Your task to perform on an android device: set default search engine in the chrome app Image 0: 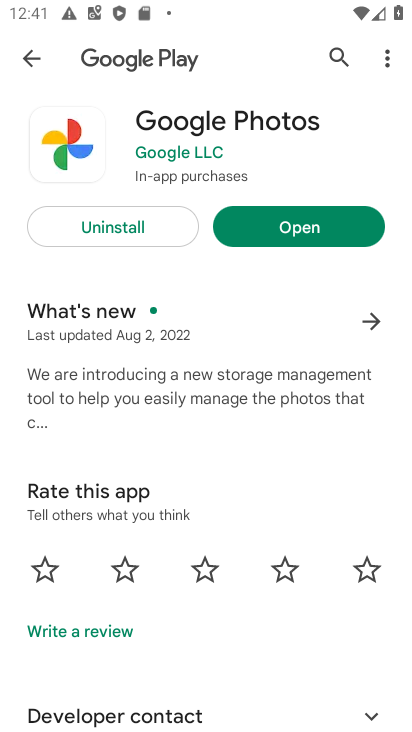
Step 0: press home button
Your task to perform on an android device: set default search engine in the chrome app Image 1: 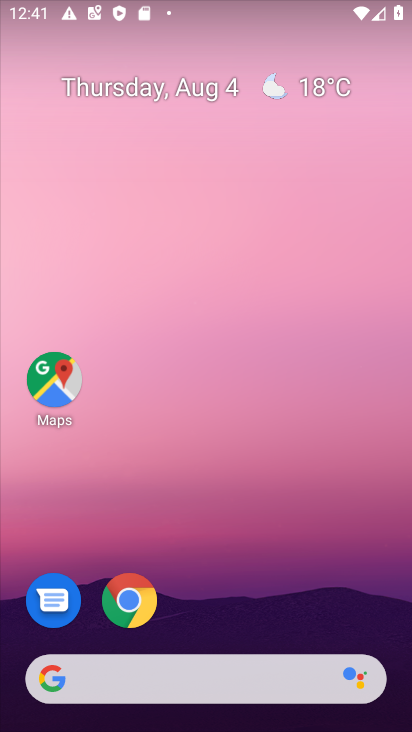
Step 1: click (123, 599)
Your task to perform on an android device: set default search engine in the chrome app Image 2: 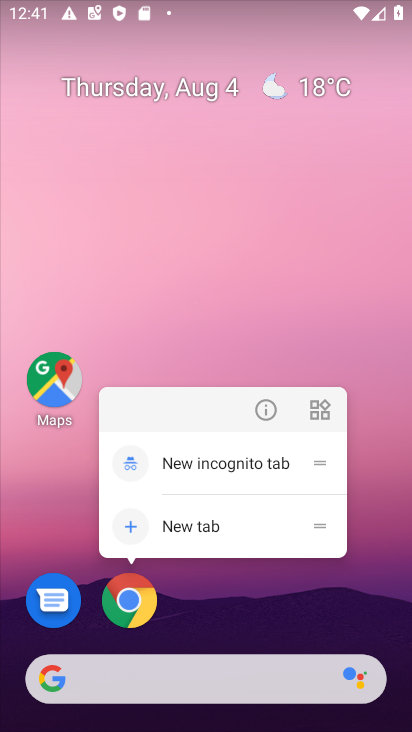
Step 2: click (132, 592)
Your task to perform on an android device: set default search engine in the chrome app Image 3: 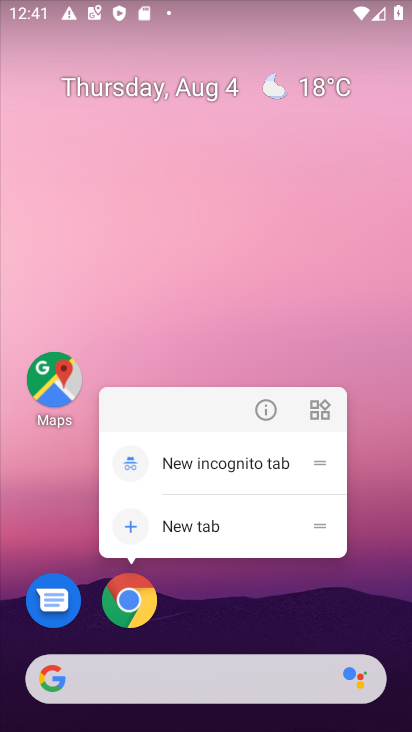
Step 3: click (132, 593)
Your task to perform on an android device: set default search engine in the chrome app Image 4: 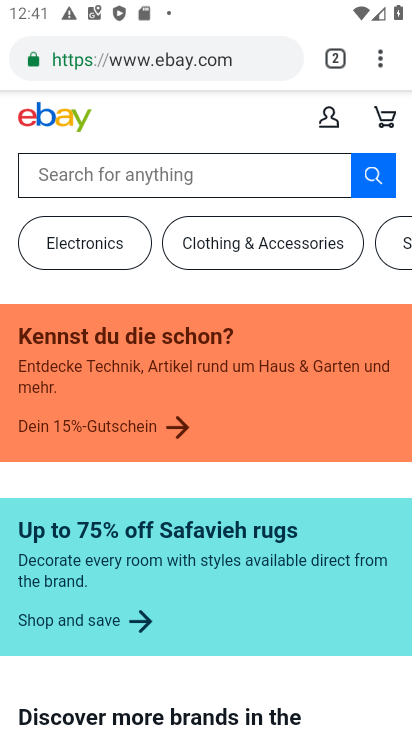
Step 4: drag from (379, 60) to (231, 620)
Your task to perform on an android device: set default search engine in the chrome app Image 5: 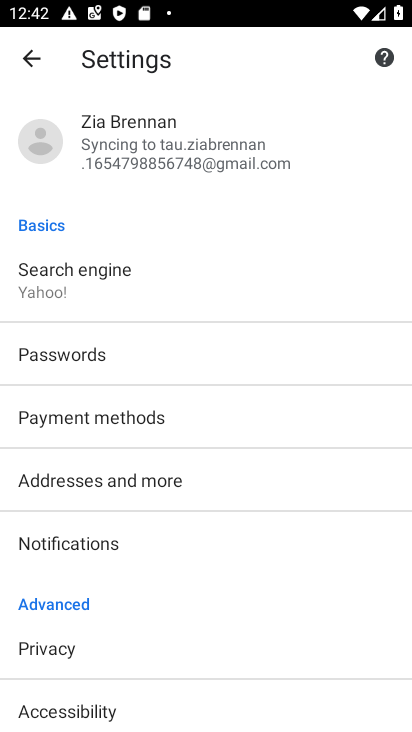
Step 5: click (87, 298)
Your task to perform on an android device: set default search engine in the chrome app Image 6: 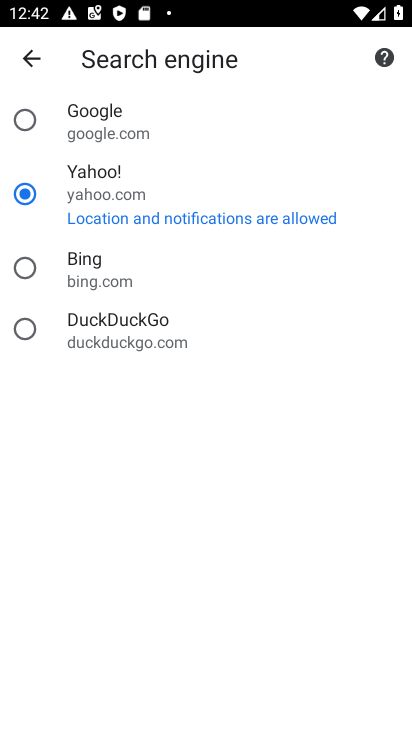
Step 6: click (24, 119)
Your task to perform on an android device: set default search engine in the chrome app Image 7: 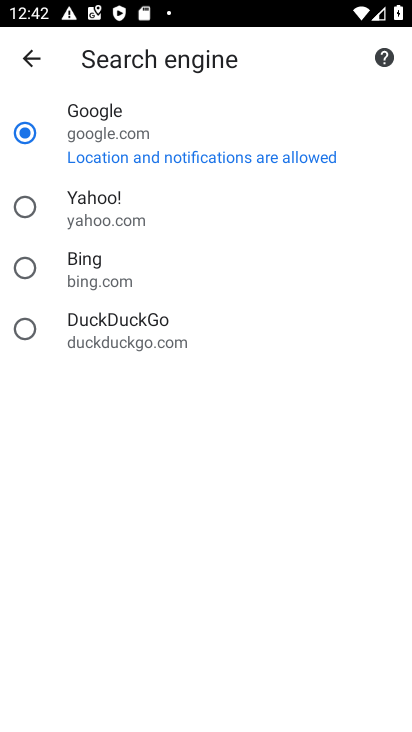
Step 7: task complete